Your task to perform on an android device: change alarm snooze length Image 0: 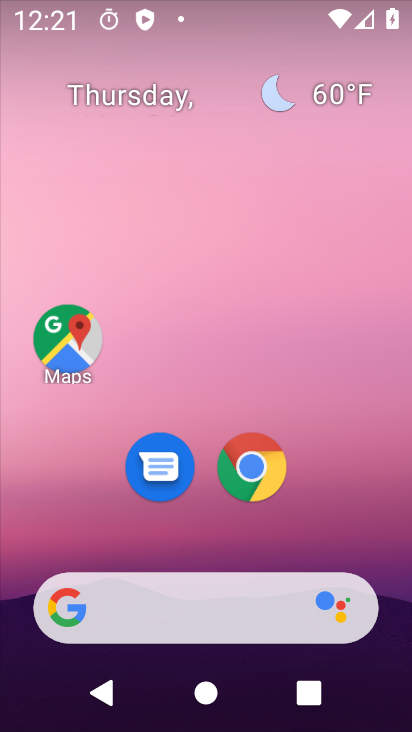
Step 0: drag from (232, 534) to (275, 3)
Your task to perform on an android device: change alarm snooze length Image 1: 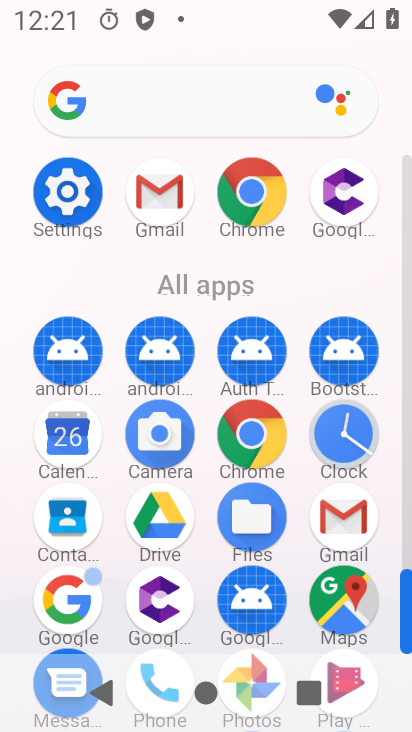
Step 1: click (344, 449)
Your task to perform on an android device: change alarm snooze length Image 2: 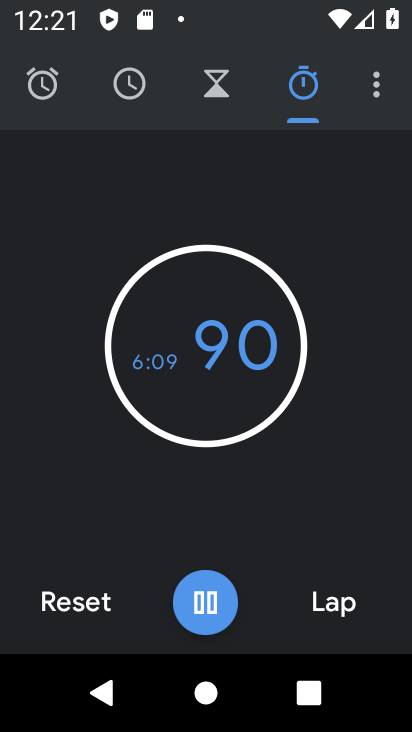
Step 2: click (69, 609)
Your task to perform on an android device: change alarm snooze length Image 3: 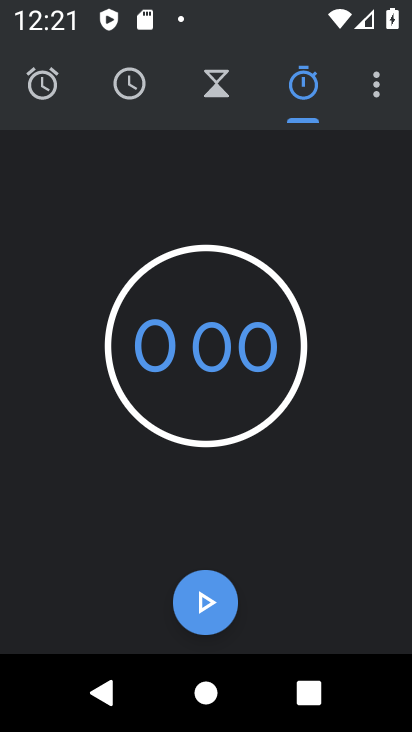
Step 3: click (376, 95)
Your task to perform on an android device: change alarm snooze length Image 4: 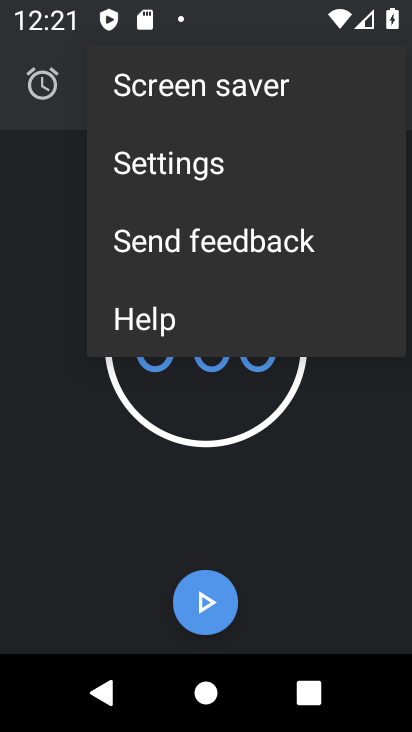
Step 4: click (173, 159)
Your task to perform on an android device: change alarm snooze length Image 5: 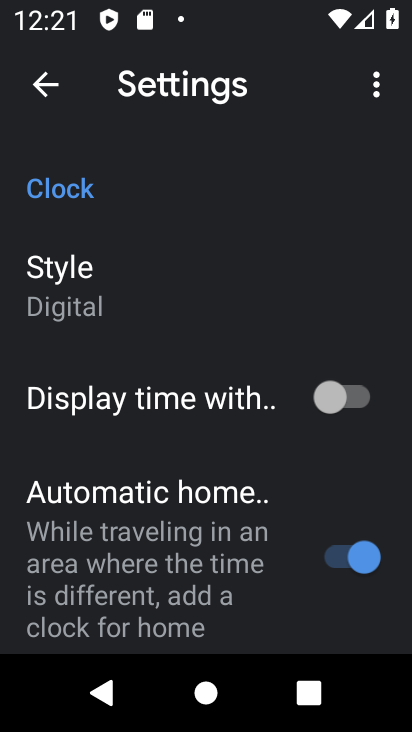
Step 5: drag from (177, 547) to (224, 285)
Your task to perform on an android device: change alarm snooze length Image 6: 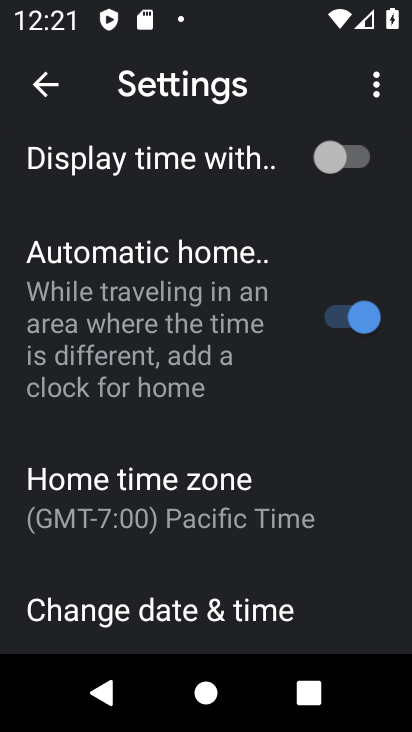
Step 6: drag from (186, 183) to (198, 619)
Your task to perform on an android device: change alarm snooze length Image 7: 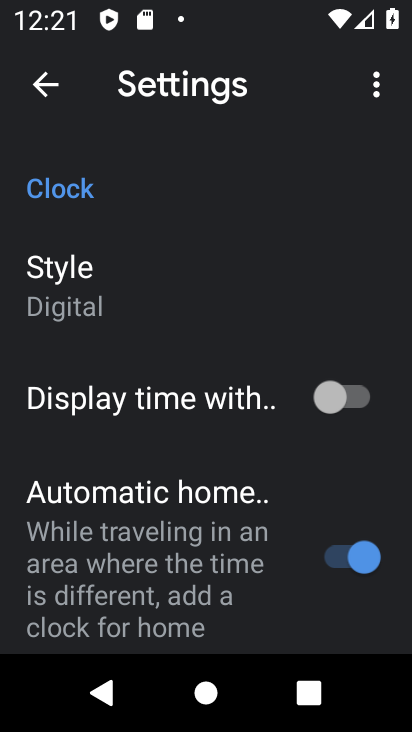
Step 7: drag from (143, 478) to (216, 107)
Your task to perform on an android device: change alarm snooze length Image 8: 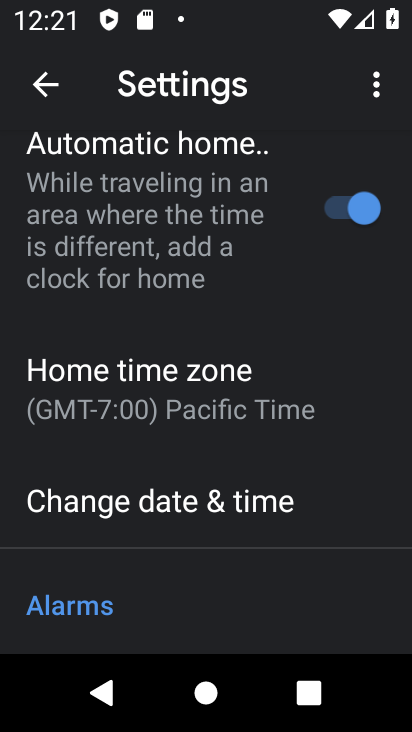
Step 8: drag from (195, 510) to (244, 309)
Your task to perform on an android device: change alarm snooze length Image 9: 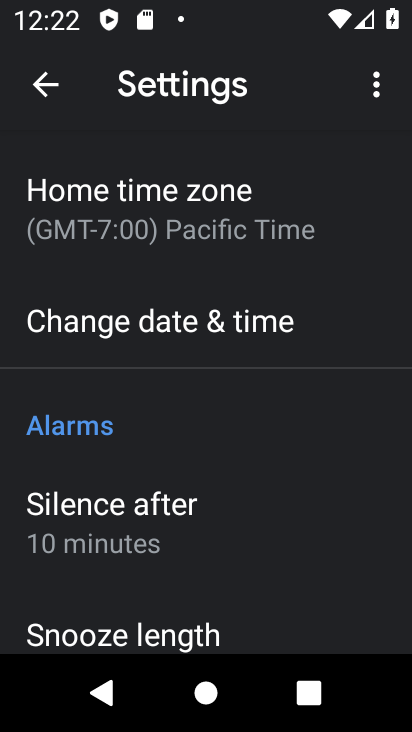
Step 9: drag from (189, 520) to (234, 289)
Your task to perform on an android device: change alarm snooze length Image 10: 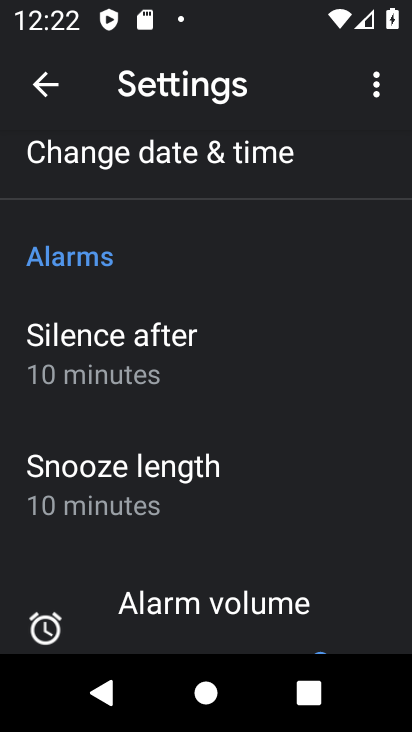
Step 10: click (133, 496)
Your task to perform on an android device: change alarm snooze length Image 11: 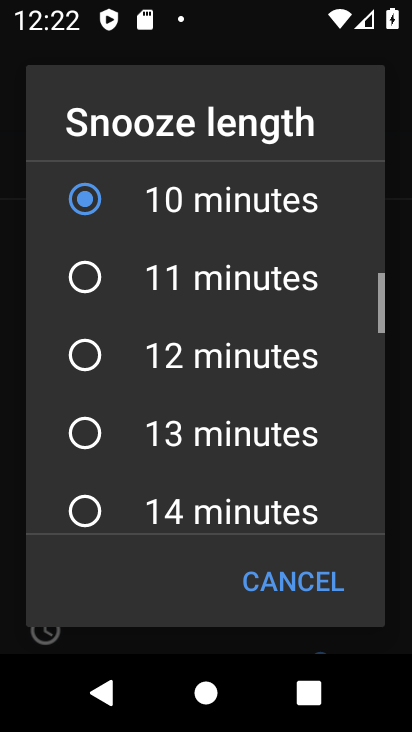
Step 11: click (136, 487)
Your task to perform on an android device: change alarm snooze length Image 12: 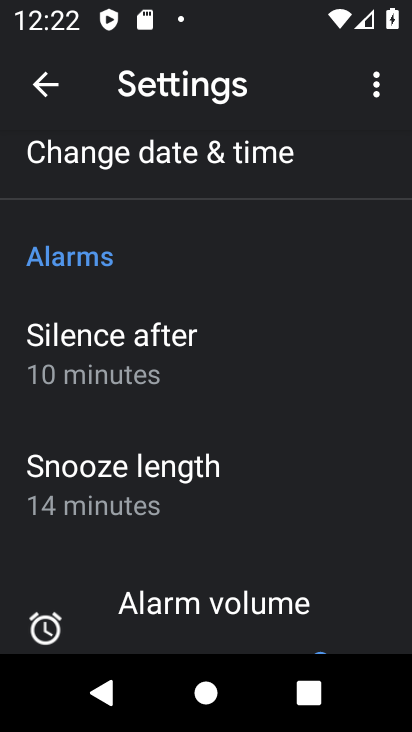
Step 12: task complete